Your task to perform on an android device: choose inbox layout in the gmail app Image 0: 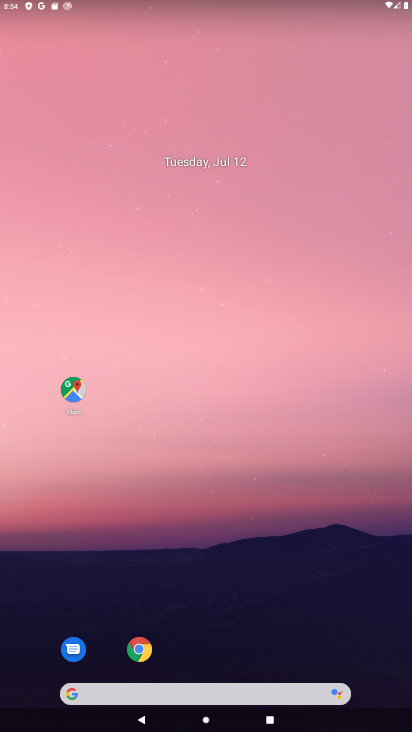
Step 0: drag from (272, 642) to (304, 45)
Your task to perform on an android device: choose inbox layout in the gmail app Image 1: 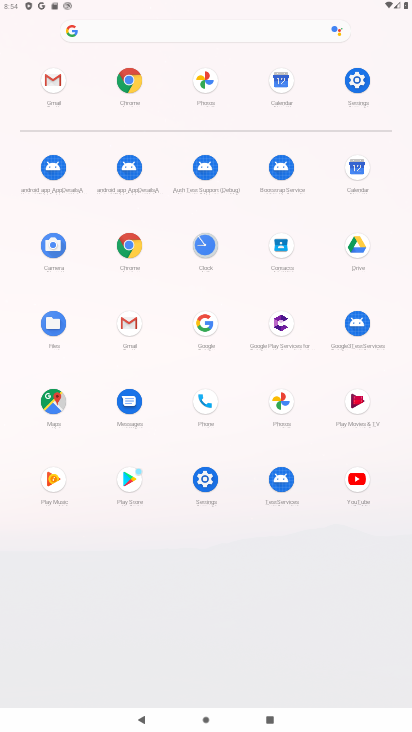
Step 1: click (47, 81)
Your task to perform on an android device: choose inbox layout in the gmail app Image 2: 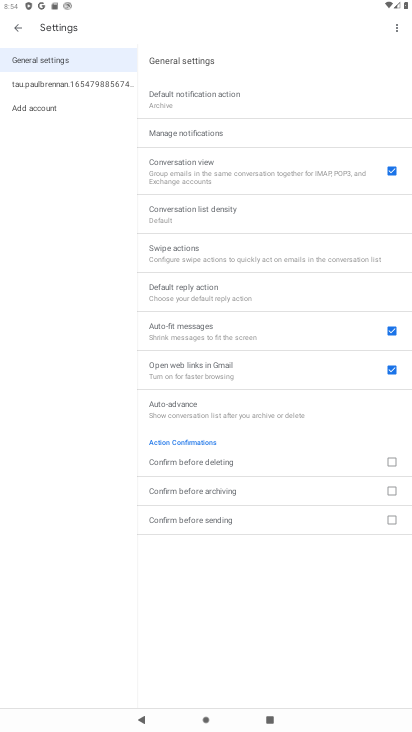
Step 2: click (50, 79)
Your task to perform on an android device: choose inbox layout in the gmail app Image 3: 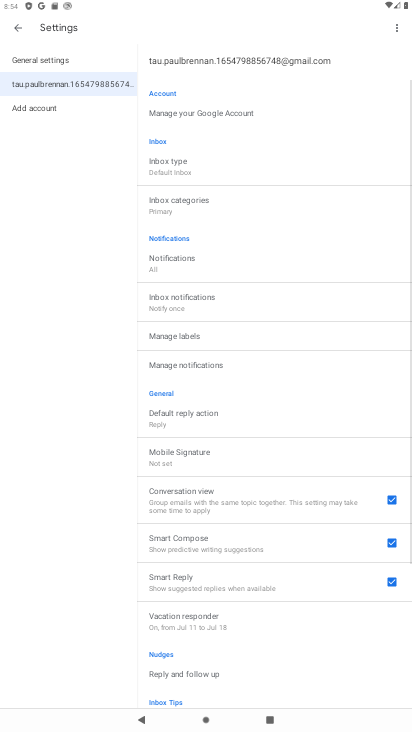
Step 3: click (20, 35)
Your task to perform on an android device: choose inbox layout in the gmail app Image 4: 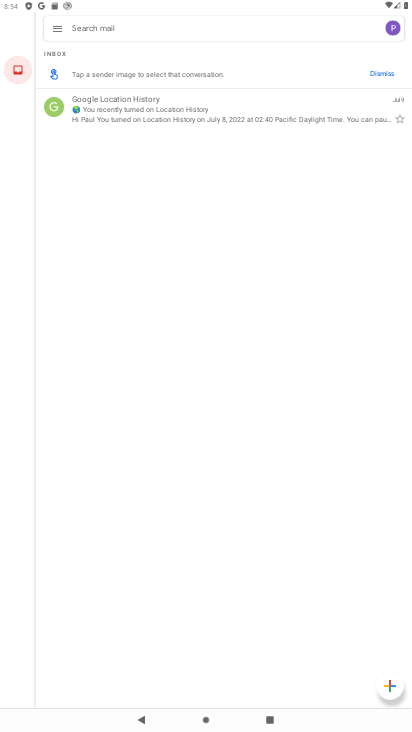
Step 4: click (20, 35)
Your task to perform on an android device: choose inbox layout in the gmail app Image 5: 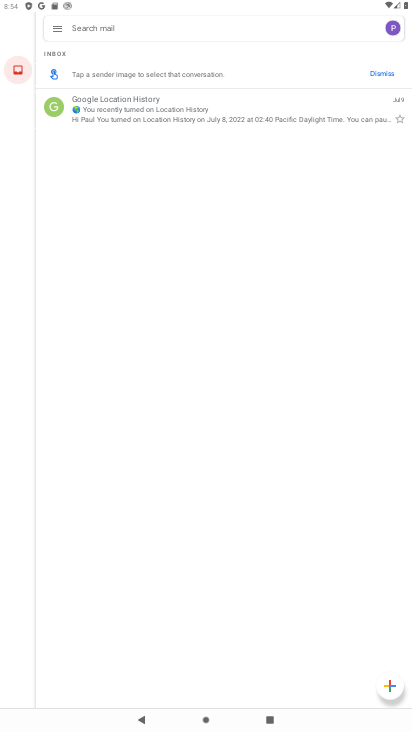
Step 5: click (16, 70)
Your task to perform on an android device: choose inbox layout in the gmail app Image 6: 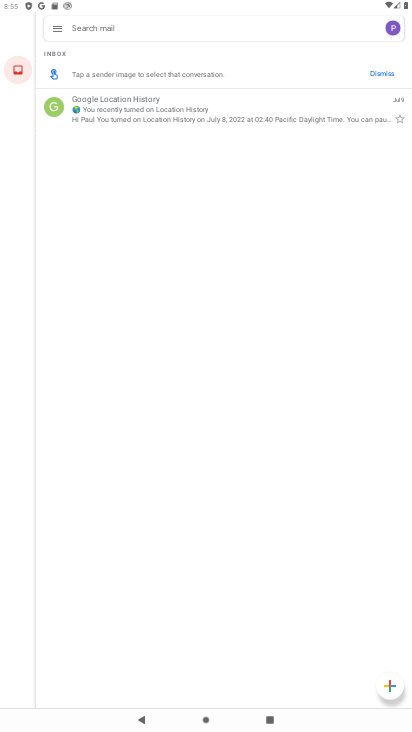
Step 6: click (14, 70)
Your task to perform on an android device: choose inbox layout in the gmail app Image 7: 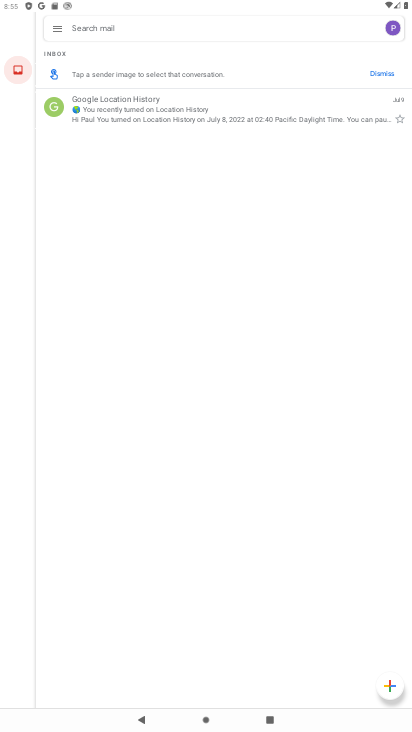
Step 7: click (82, 27)
Your task to perform on an android device: choose inbox layout in the gmail app Image 8: 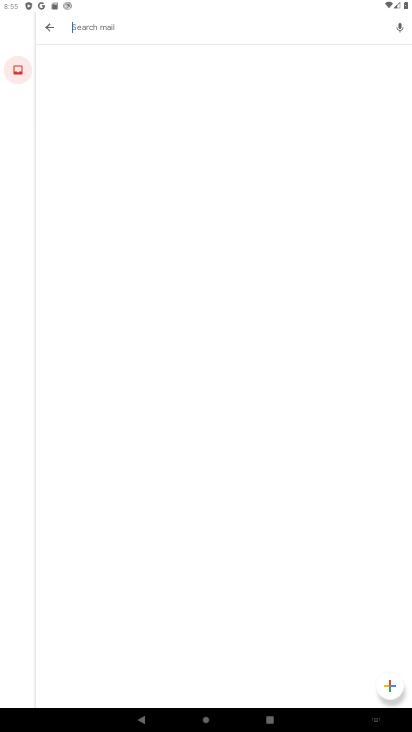
Step 8: click (48, 32)
Your task to perform on an android device: choose inbox layout in the gmail app Image 9: 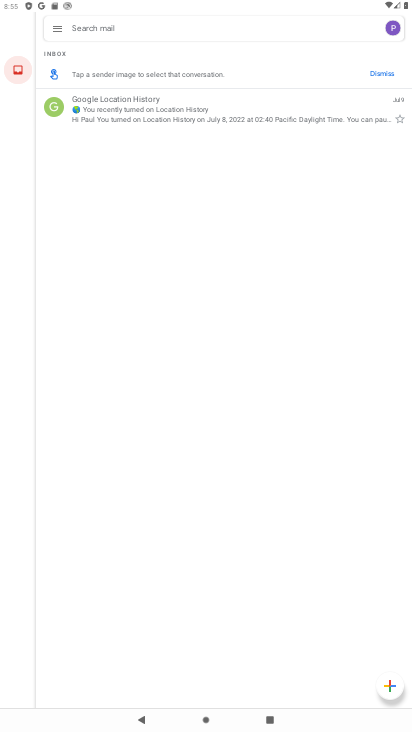
Step 9: click (48, 32)
Your task to perform on an android device: choose inbox layout in the gmail app Image 10: 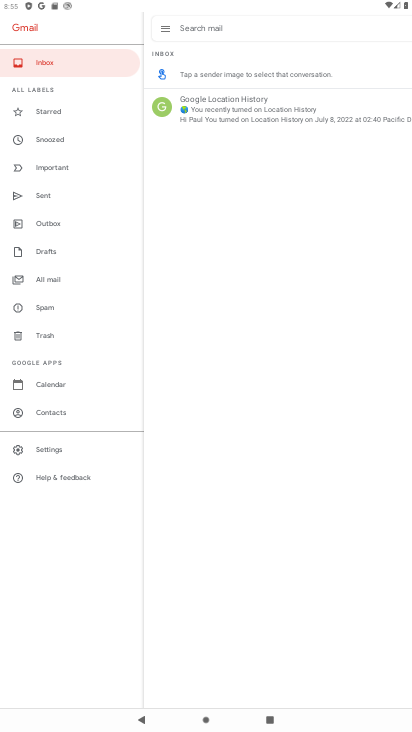
Step 10: click (55, 62)
Your task to perform on an android device: choose inbox layout in the gmail app Image 11: 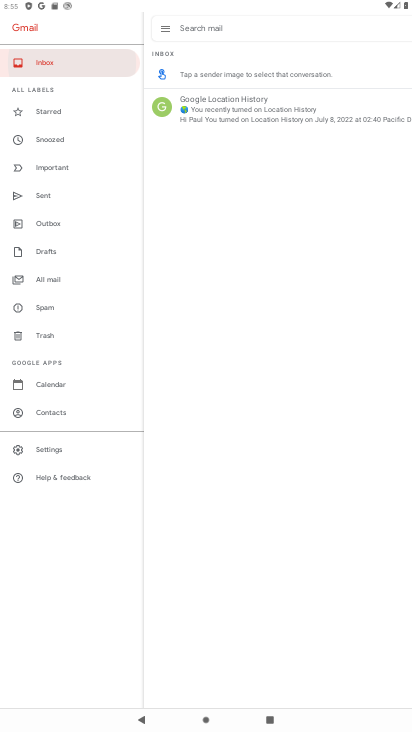
Step 11: task complete